Your task to perform on an android device: add a contact in the contacts app Image 0: 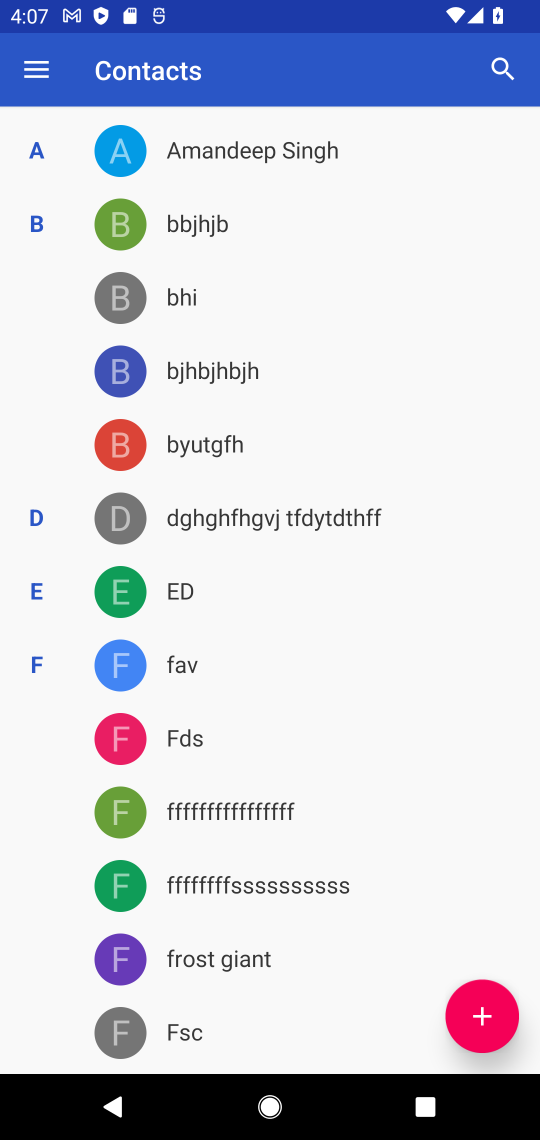
Step 0: press home button
Your task to perform on an android device: add a contact in the contacts app Image 1: 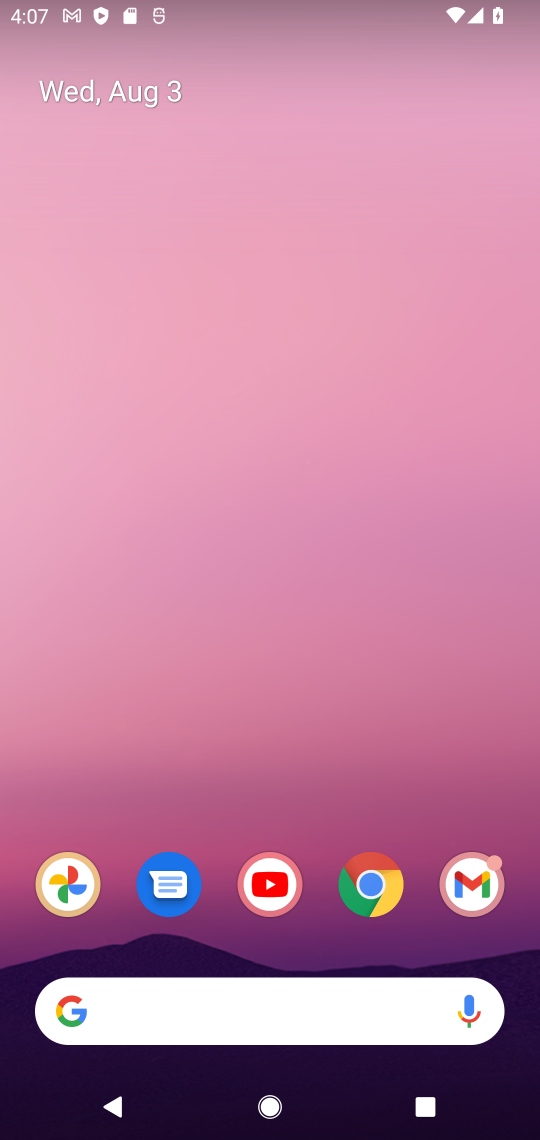
Step 1: drag from (221, 1077) to (405, 45)
Your task to perform on an android device: add a contact in the contacts app Image 2: 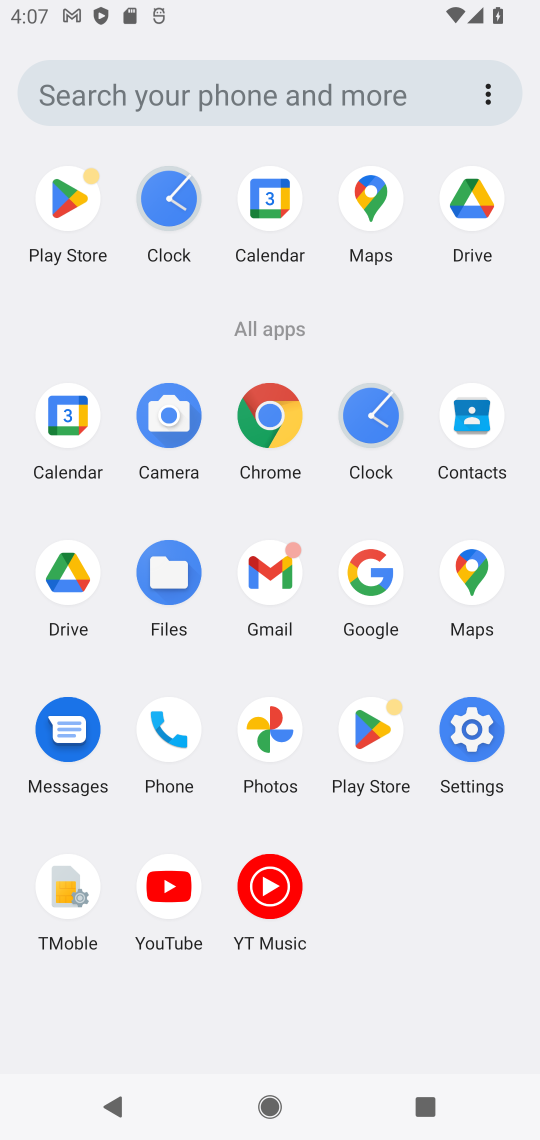
Step 2: click (175, 731)
Your task to perform on an android device: add a contact in the contacts app Image 3: 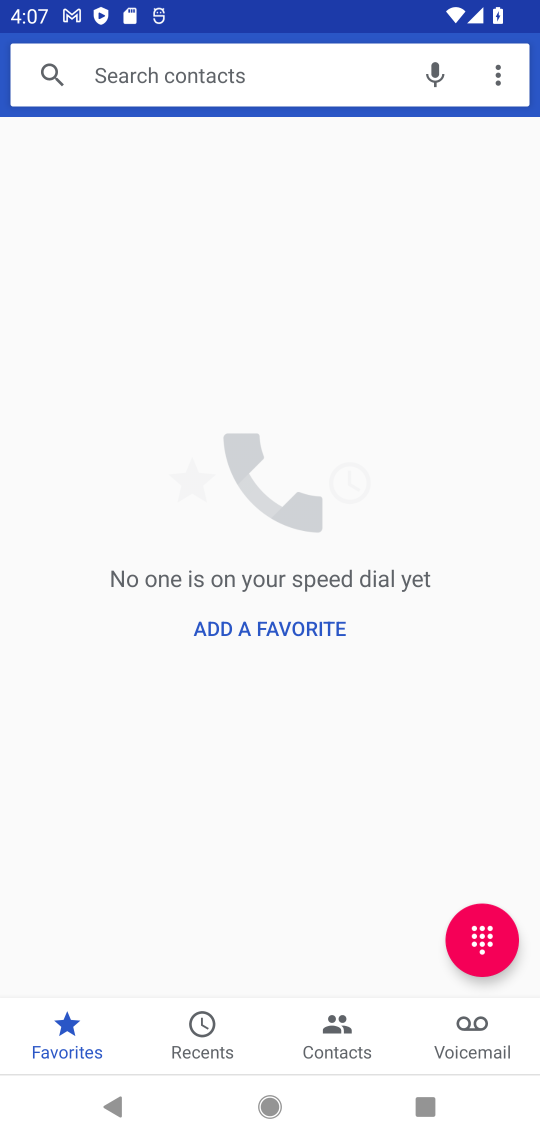
Step 3: click (320, 1032)
Your task to perform on an android device: add a contact in the contacts app Image 4: 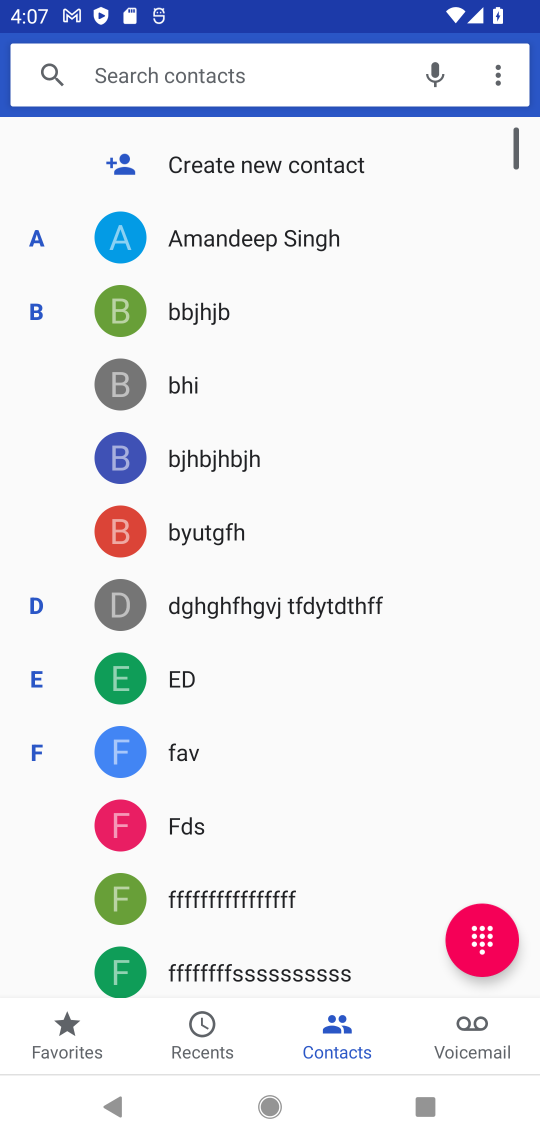
Step 4: click (183, 180)
Your task to perform on an android device: add a contact in the contacts app Image 5: 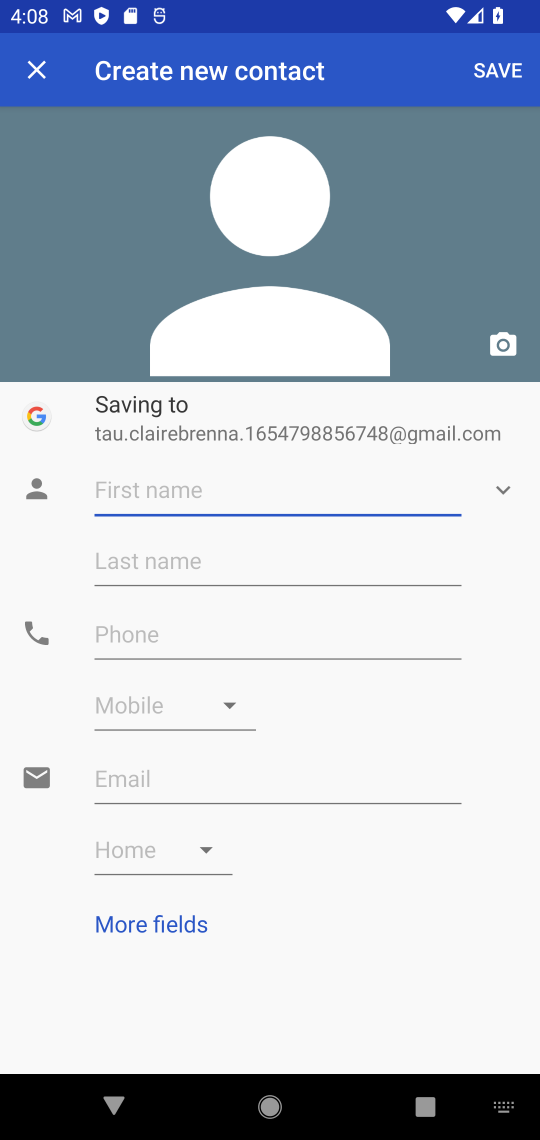
Step 5: type "fghhhh"
Your task to perform on an android device: add a contact in the contacts app Image 6: 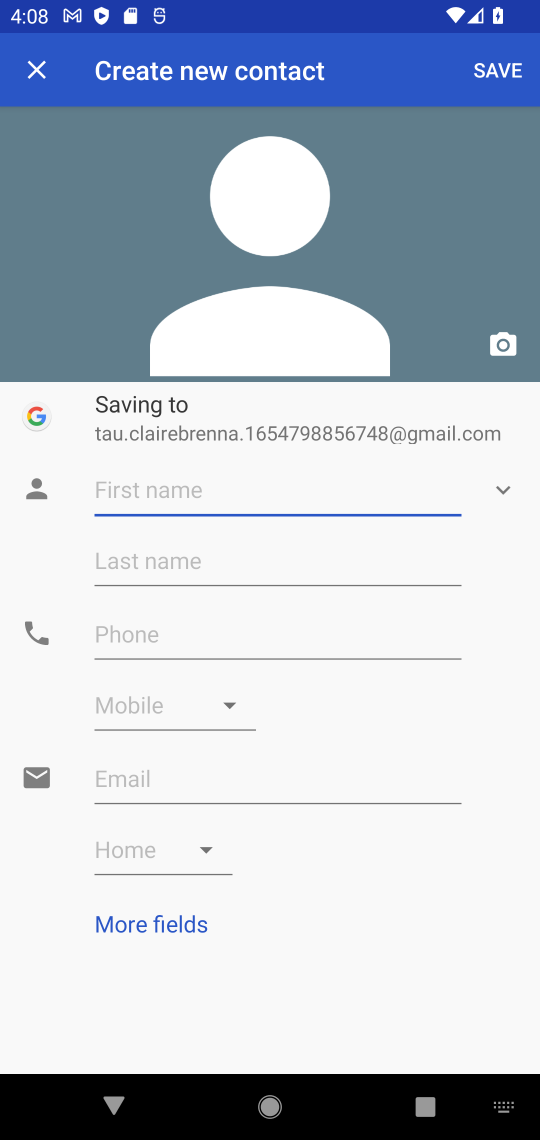
Step 6: click (256, 614)
Your task to perform on an android device: add a contact in the contacts app Image 7: 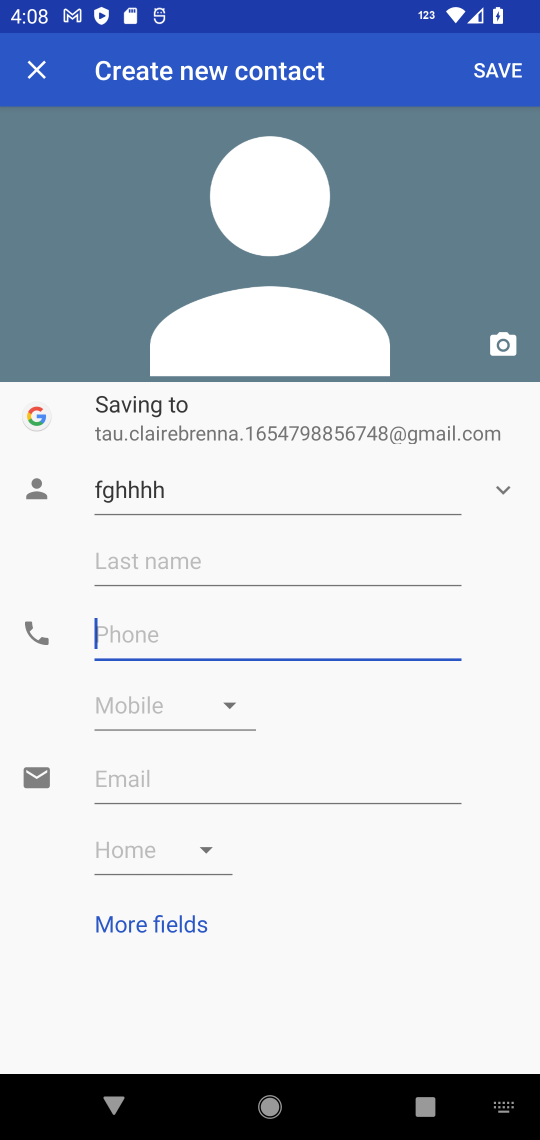
Step 7: type "764578887"
Your task to perform on an android device: add a contact in the contacts app Image 8: 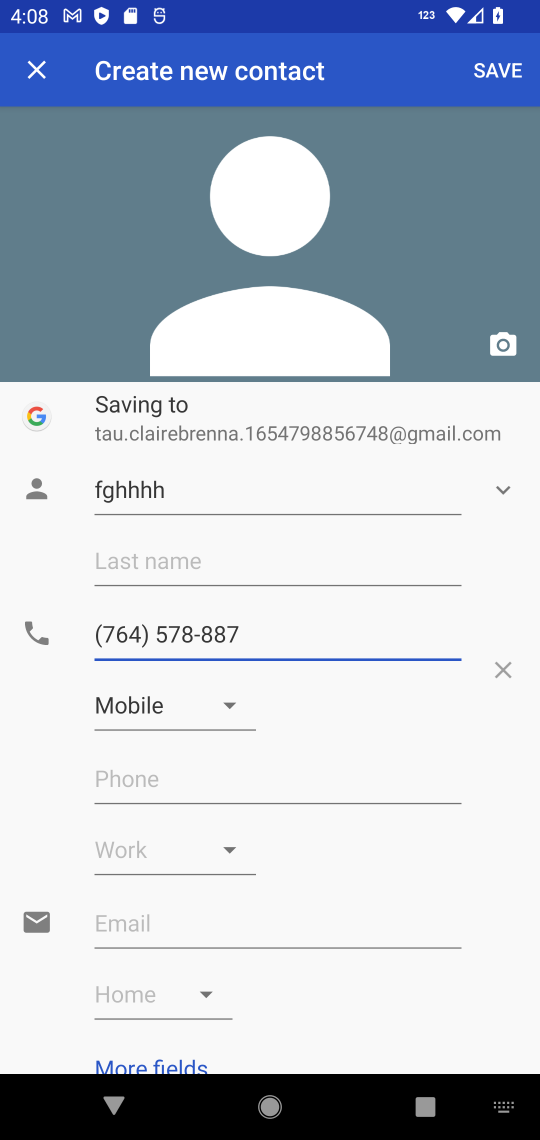
Step 8: click (501, 65)
Your task to perform on an android device: add a contact in the contacts app Image 9: 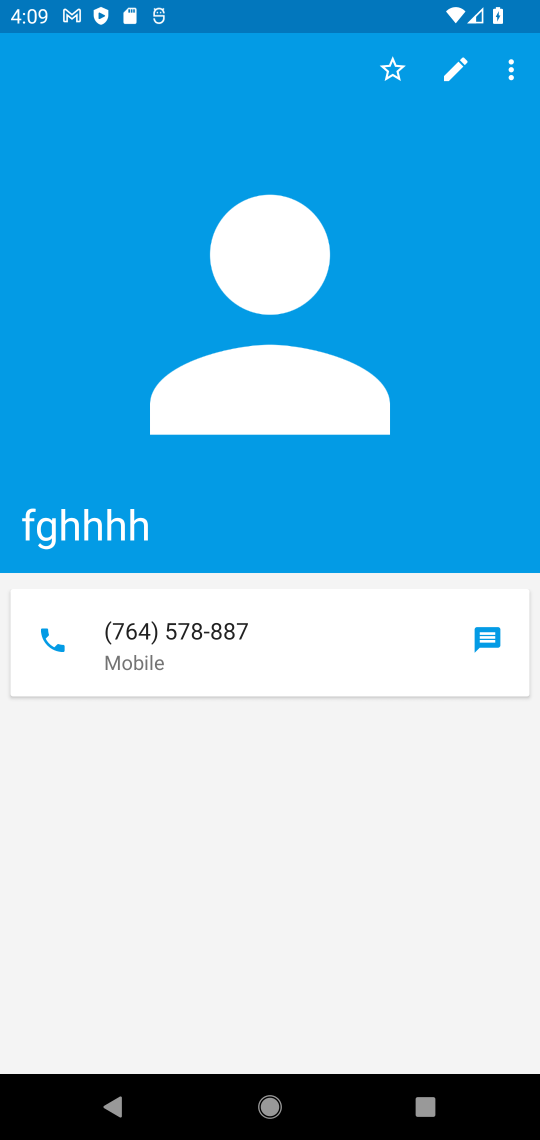
Step 9: task complete